Your task to perform on an android device: clear history in the chrome app Image 0: 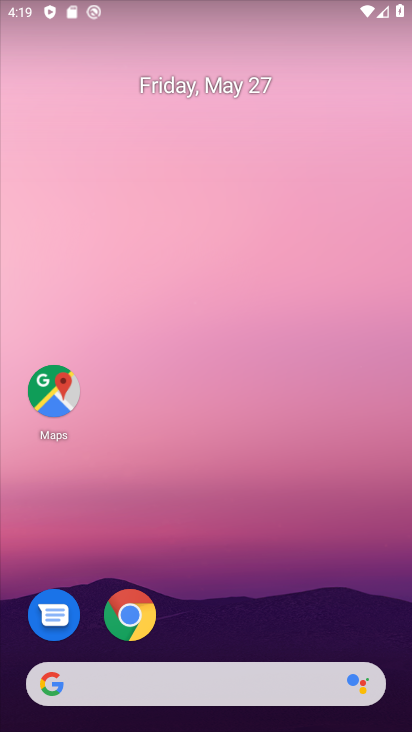
Step 0: click (137, 614)
Your task to perform on an android device: clear history in the chrome app Image 1: 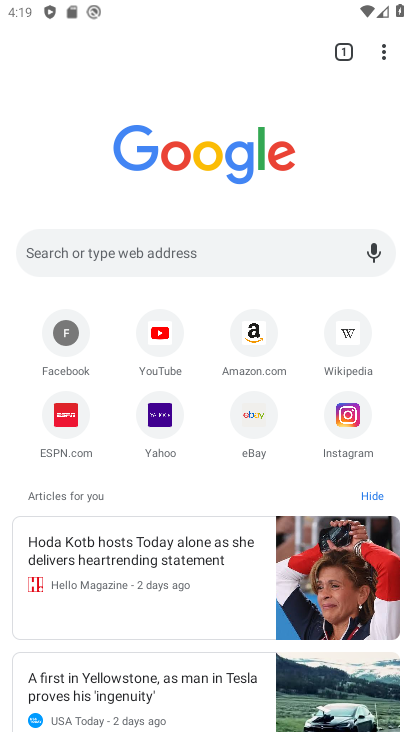
Step 1: click (376, 45)
Your task to perform on an android device: clear history in the chrome app Image 2: 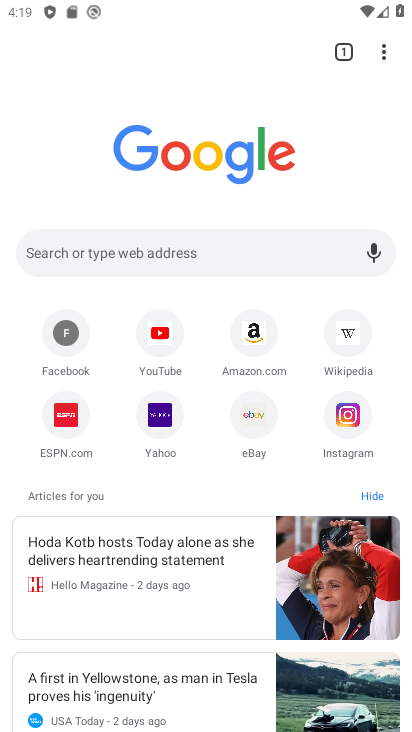
Step 2: click (386, 50)
Your task to perform on an android device: clear history in the chrome app Image 3: 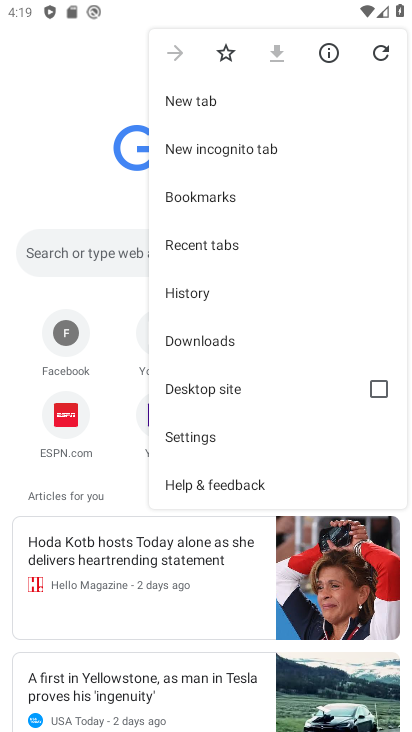
Step 3: click (212, 276)
Your task to perform on an android device: clear history in the chrome app Image 4: 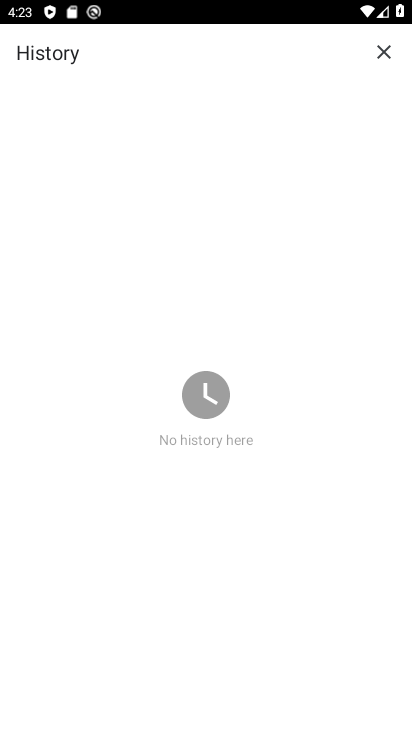
Step 4: task complete